Your task to perform on an android device: turn smart compose on in the gmail app Image 0: 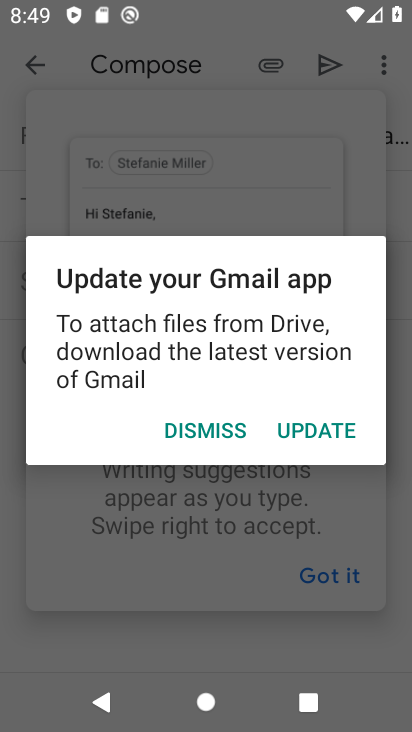
Step 0: press home button
Your task to perform on an android device: turn smart compose on in the gmail app Image 1: 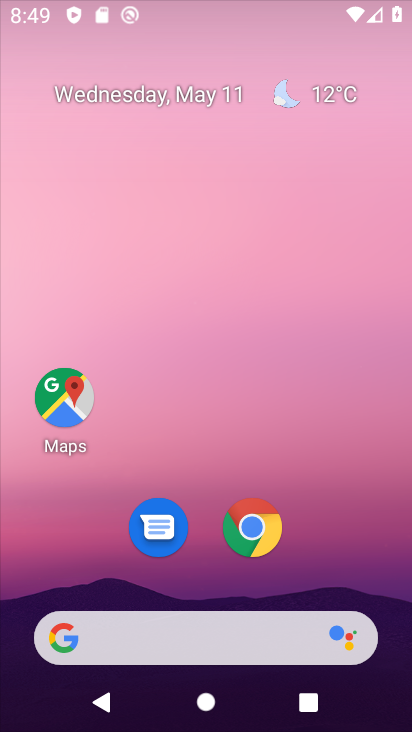
Step 1: drag from (311, 513) to (299, 141)
Your task to perform on an android device: turn smart compose on in the gmail app Image 2: 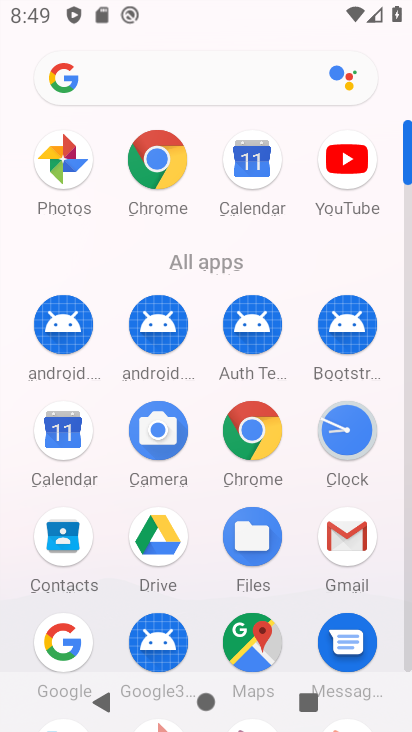
Step 2: click (350, 547)
Your task to perform on an android device: turn smart compose on in the gmail app Image 3: 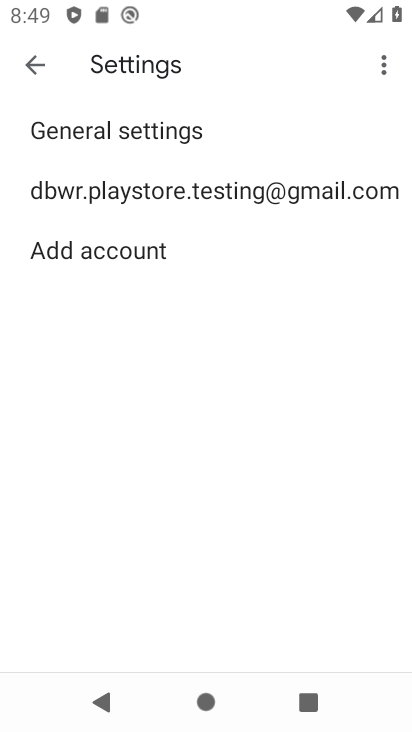
Step 3: click (188, 196)
Your task to perform on an android device: turn smart compose on in the gmail app Image 4: 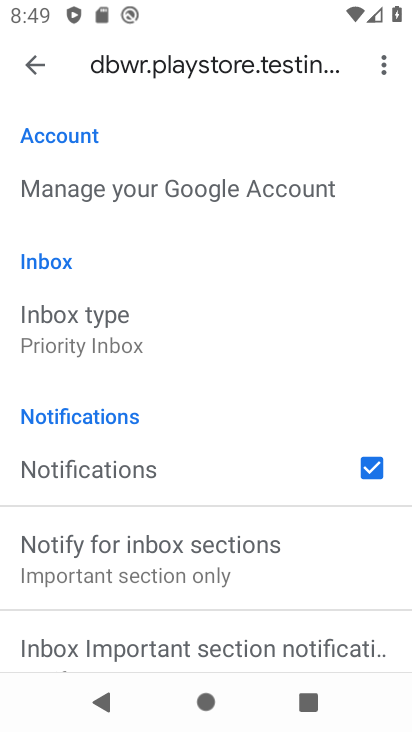
Step 4: task complete